Your task to perform on an android device: Search for Italian restaurants on Maps Image 0: 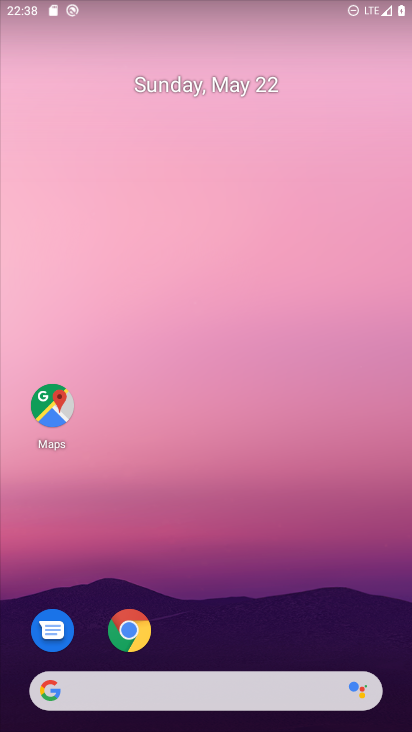
Step 0: press home button
Your task to perform on an android device: Search for Italian restaurants on Maps Image 1: 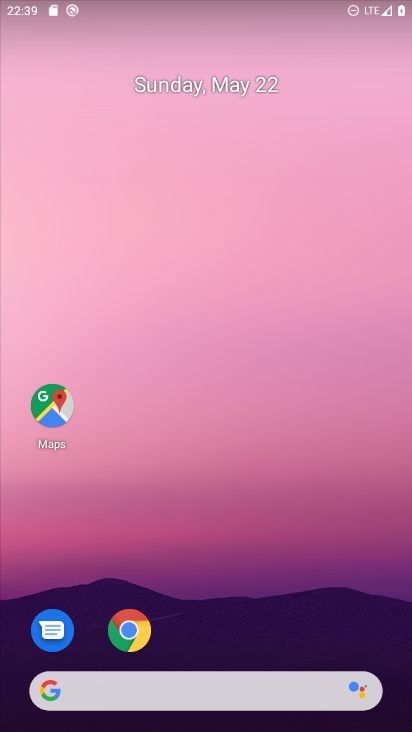
Step 1: click (54, 409)
Your task to perform on an android device: Search for Italian restaurants on Maps Image 2: 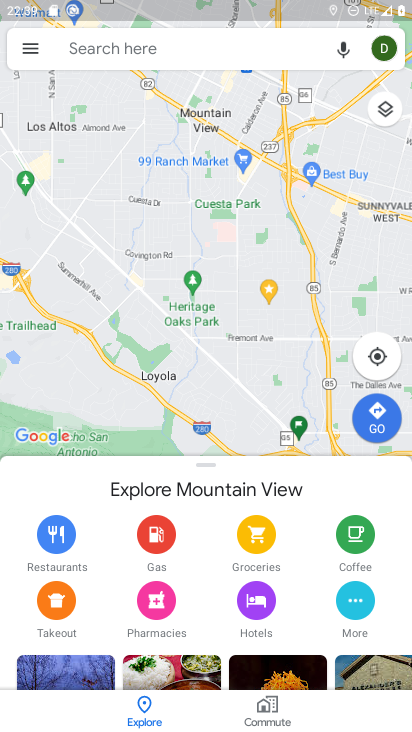
Step 2: click (214, 53)
Your task to perform on an android device: Search for Italian restaurants on Maps Image 3: 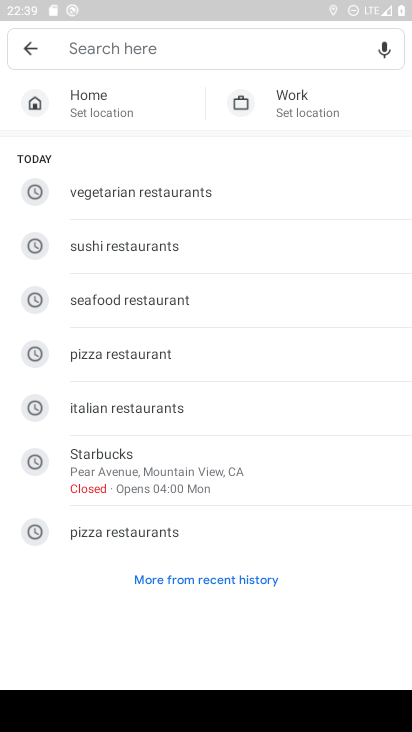
Step 3: click (156, 406)
Your task to perform on an android device: Search for Italian restaurants on Maps Image 4: 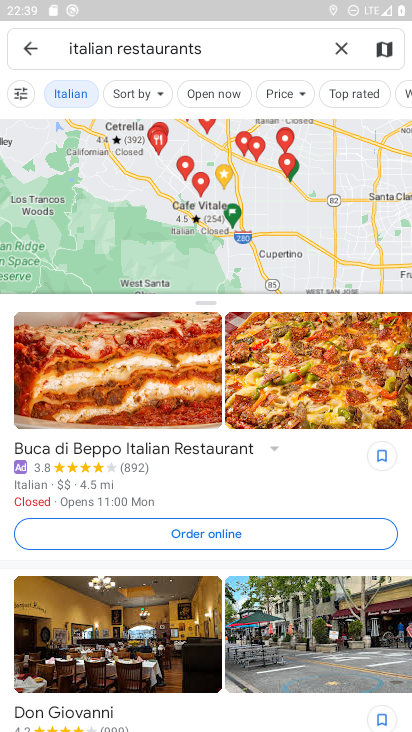
Step 4: task complete